Your task to perform on an android device: How do I get to the nearest McDonalds? Image 0: 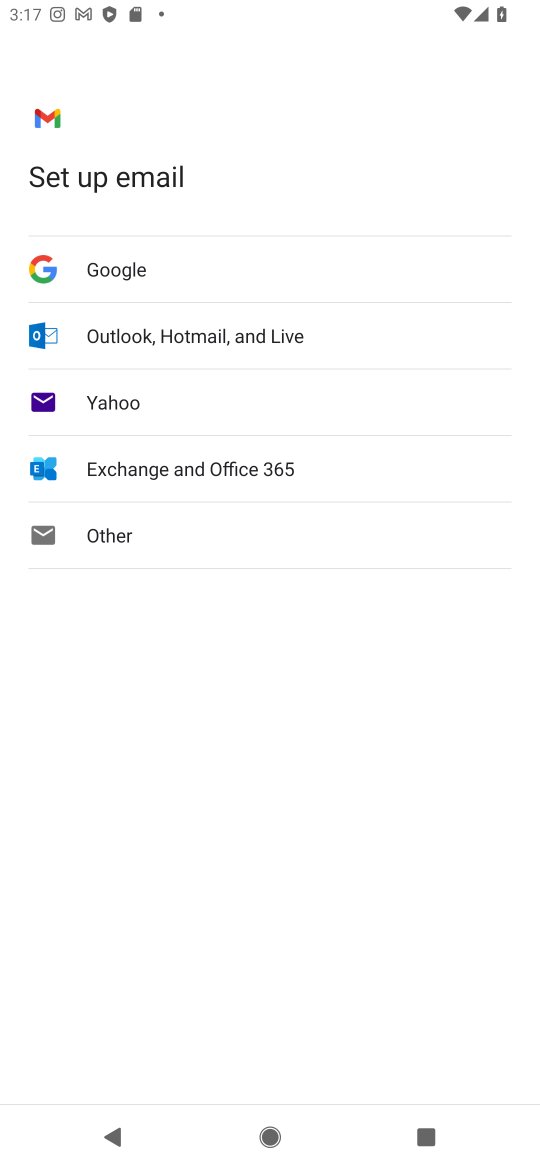
Step 0: press home button
Your task to perform on an android device: How do I get to the nearest McDonalds? Image 1: 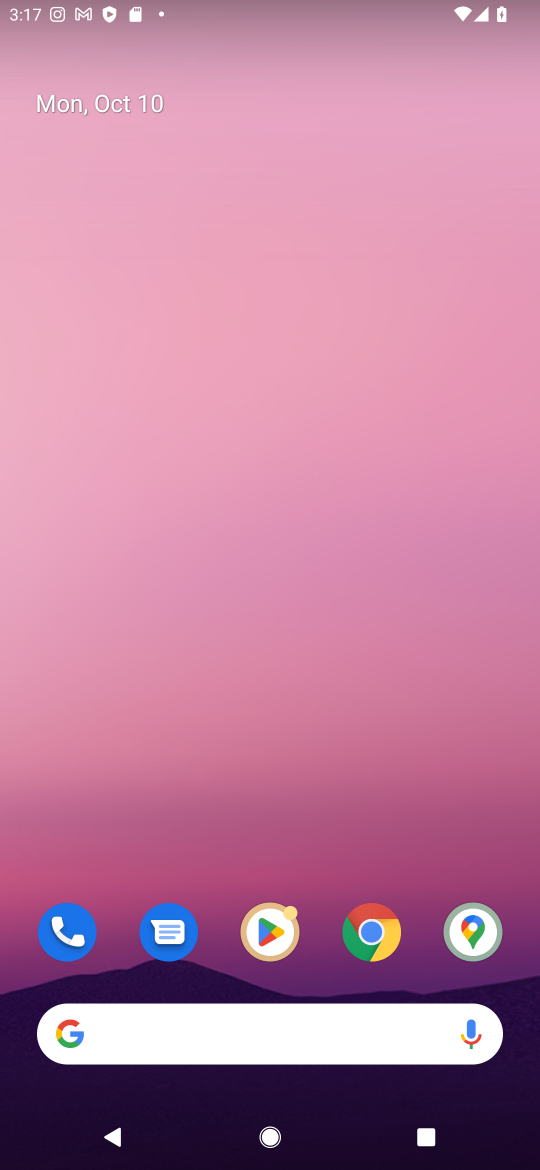
Step 1: click (284, 1033)
Your task to perform on an android device: How do I get to the nearest McDonalds? Image 2: 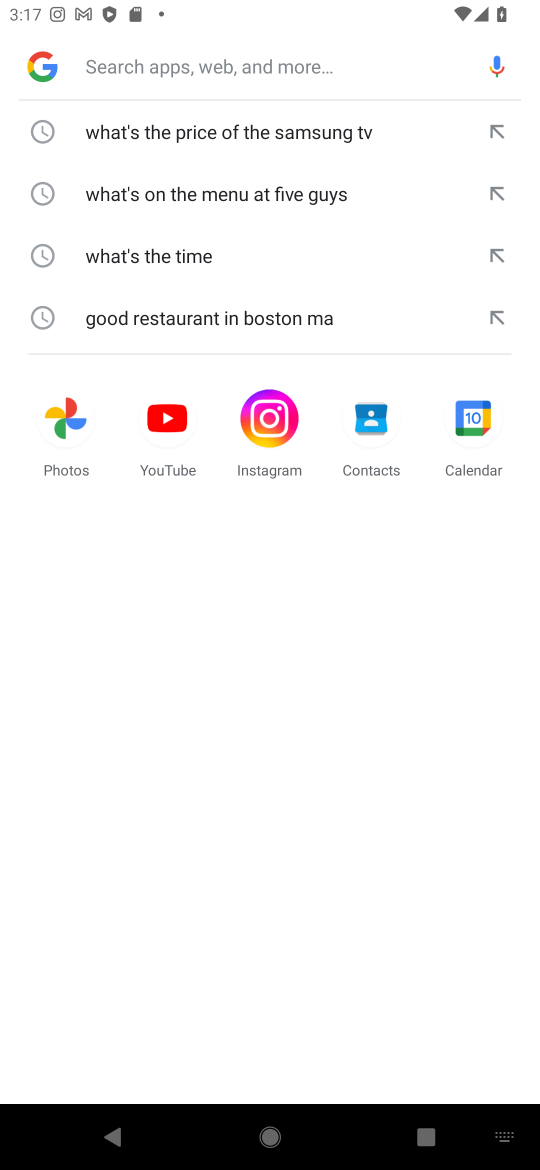
Step 2: type "How do I get to the nearest McDonalds"
Your task to perform on an android device: How do I get to the nearest McDonalds? Image 3: 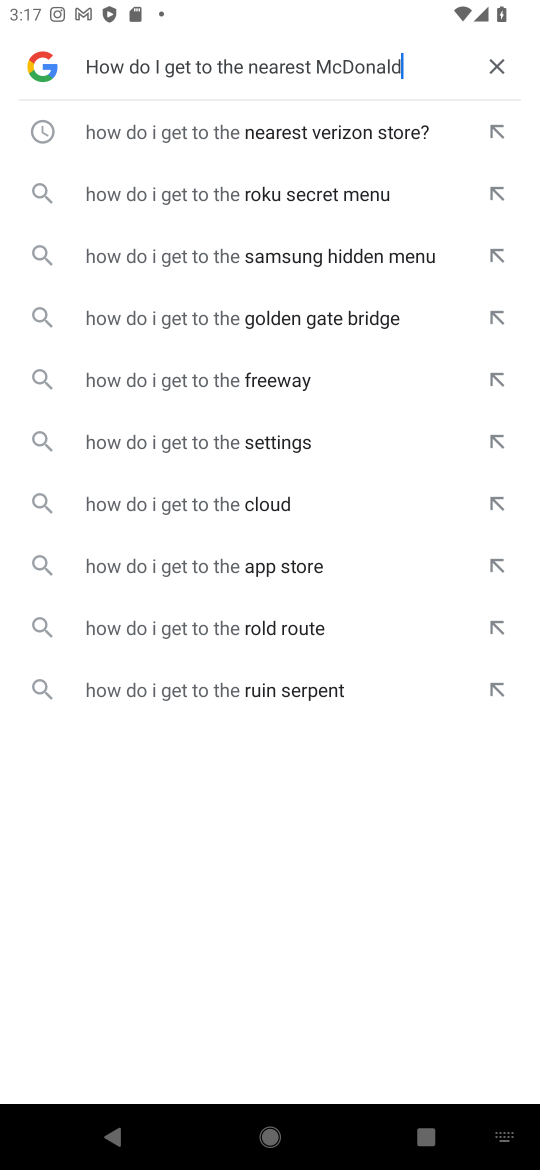
Step 3: press enter
Your task to perform on an android device: How do I get to the nearest McDonalds? Image 4: 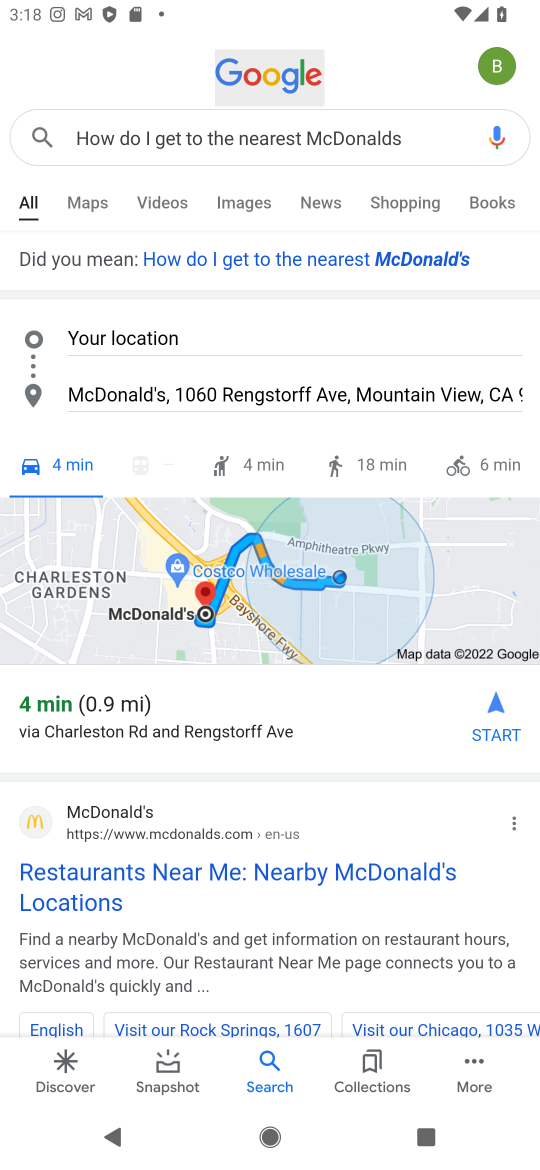
Step 4: click (327, 262)
Your task to perform on an android device: How do I get to the nearest McDonalds? Image 5: 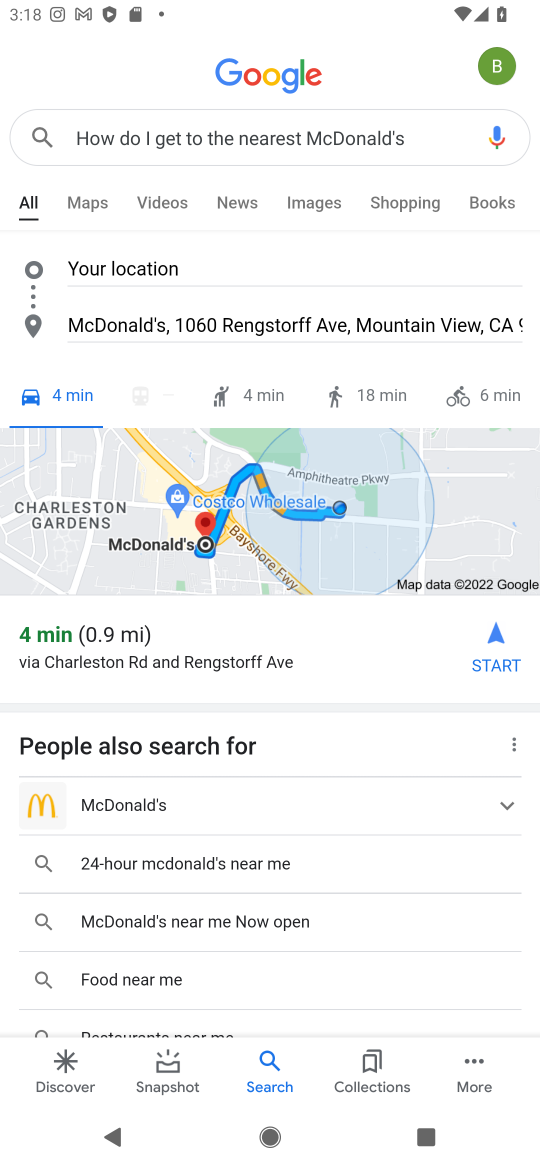
Step 5: task complete